Your task to perform on an android device: turn notification dots on Image 0: 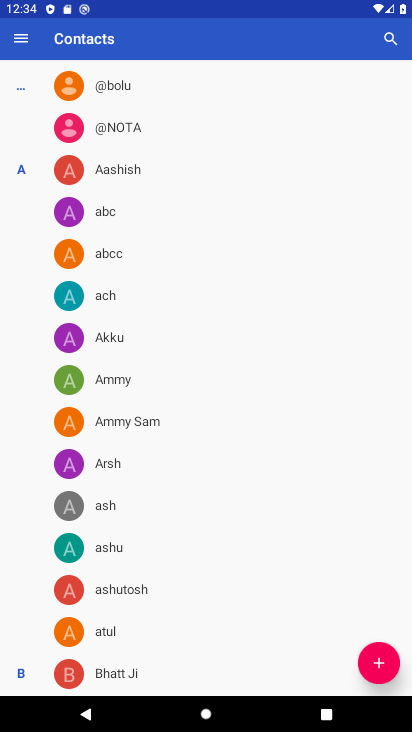
Step 0: press home button
Your task to perform on an android device: turn notification dots on Image 1: 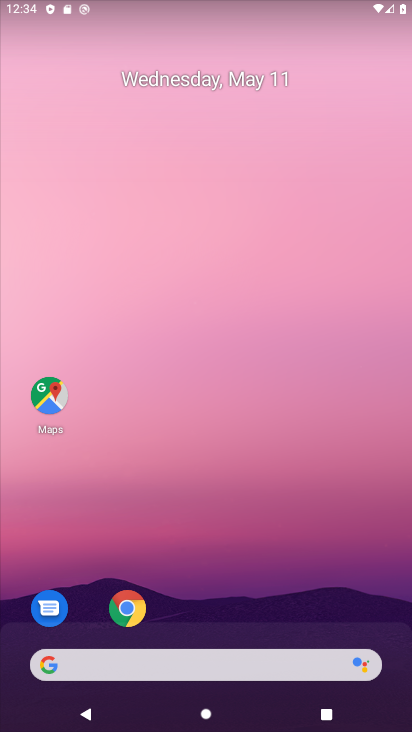
Step 1: drag from (241, 593) to (250, 120)
Your task to perform on an android device: turn notification dots on Image 2: 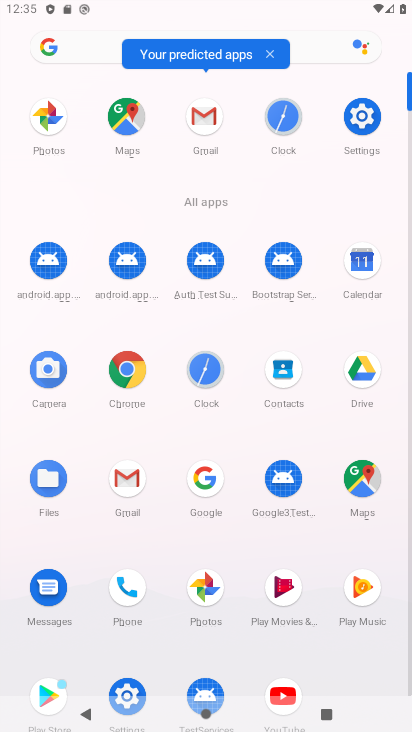
Step 2: click (354, 126)
Your task to perform on an android device: turn notification dots on Image 3: 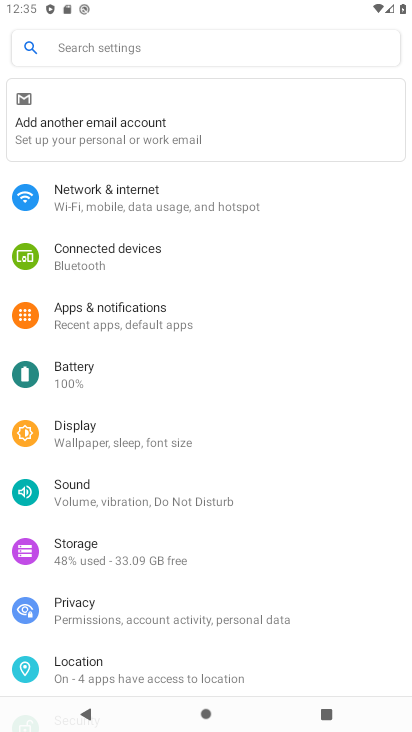
Step 3: click (154, 306)
Your task to perform on an android device: turn notification dots on Image 4: 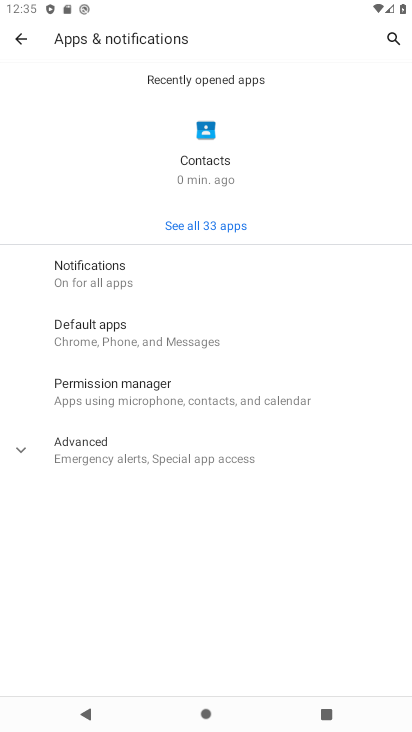
Step 4: click (148, 282)
Your task to perform on an android device: turn notification dots on Image 5: 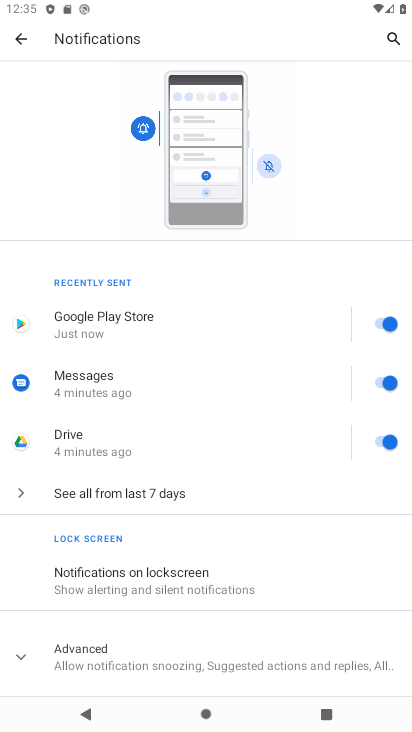
Step 5: click (27, 651)
Your task to perform on an android device: turn notification dots on Image 6: 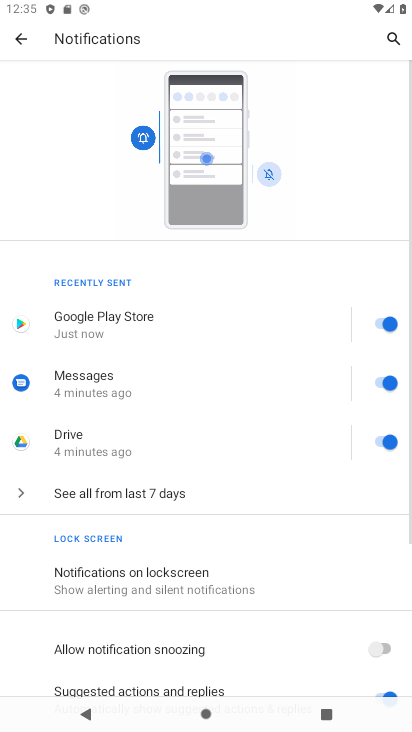
Step 6: task complete